Your task to perform on an android device: open sync settings in chrome Image 0: 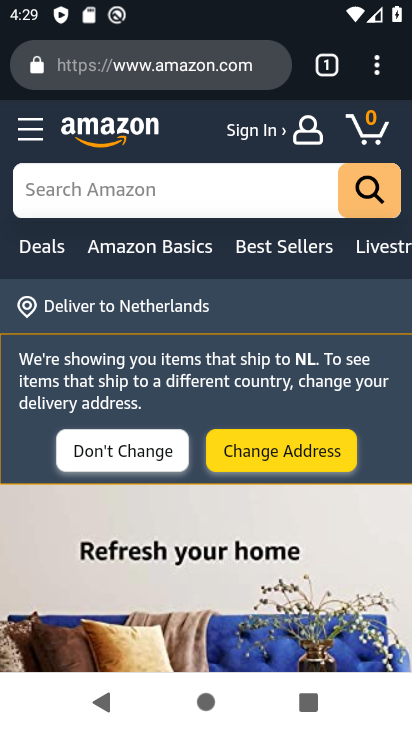
Step 0: click (386, 65)
Your task to perform on an android device: open sync settings in chrome Image 1: 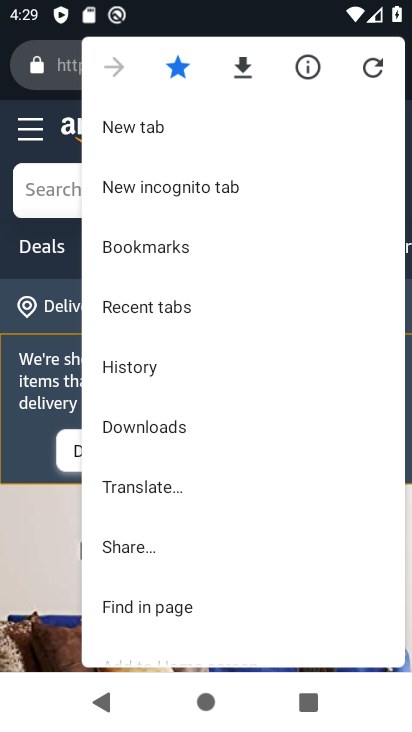
Step 1: drag from (152, 625) to (155, 211)
Your task to perform on an android device: open sync settings in chrome Image 2: 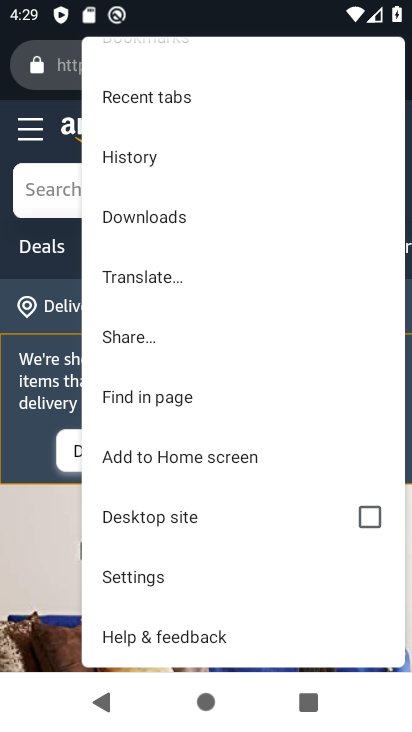
Step 2: drag from (119, 624) to (192, 147)
Your task to perform on an android device: open sync settings in chrome Image 3: 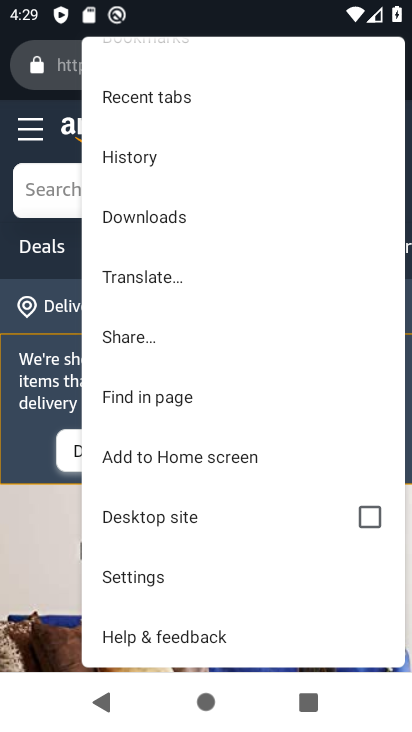
Step 3: click (172, 577)
Your task to perform on an android device: open sync settings in chrome Image 4: 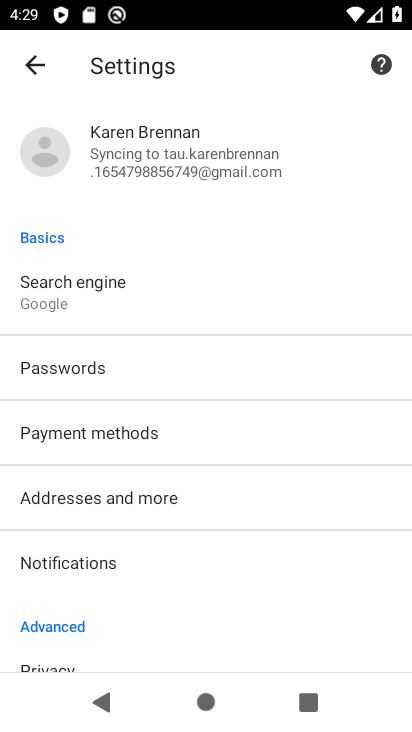
Step 4: click (171, 176)
Your task to perform on an android device: open sync settings in chrome Image 5: 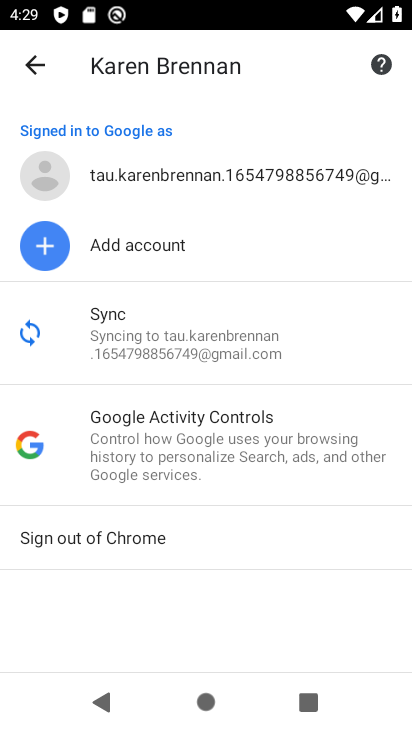
Step 5: click (291, 298)
Your task to perform on an android device: open sync settings in chrome Image 6: 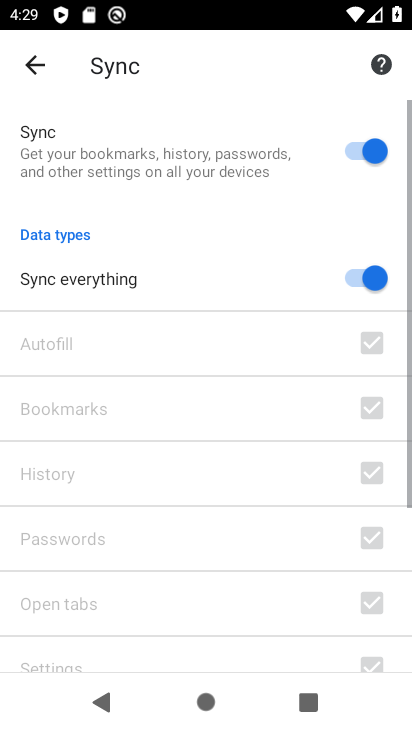
Step 6: task complete